Your task to perform on an android device: allow cookies in the chrome app Image 0: 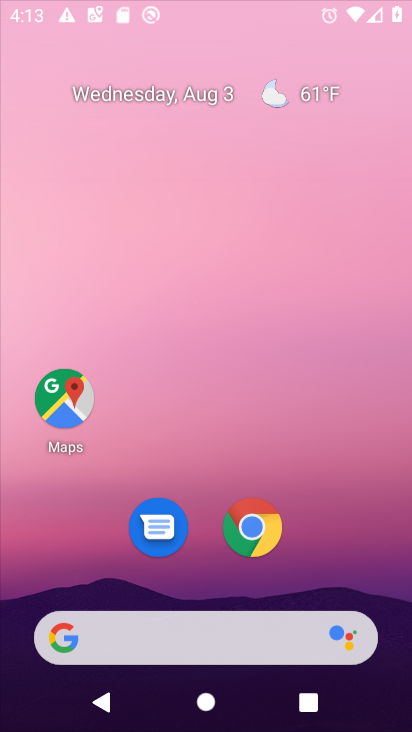
Step 0: drag from (339, 424) to (380, 82)
Your task to perform on an android device: allow cookies in the chrome app Image 1: 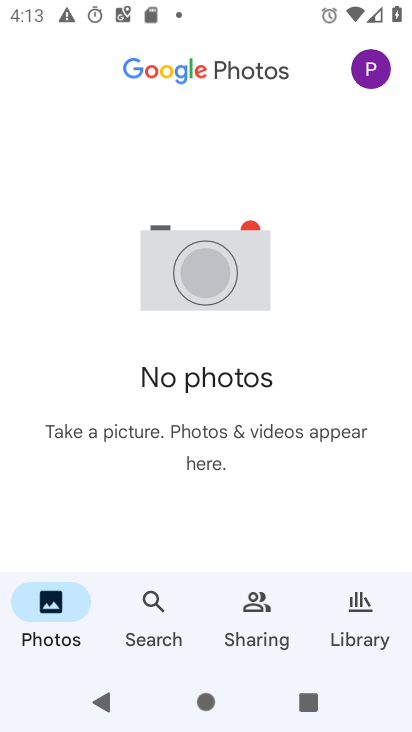
Step 1: press home button
Your task to perform on an android device: allow cookies in the chrome app Image 2: 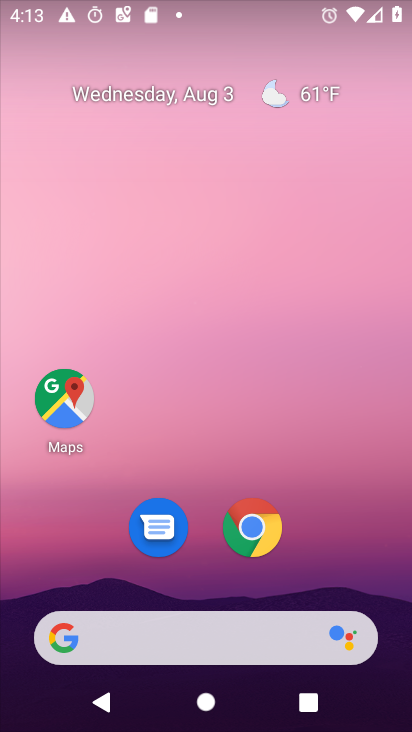
Step 2: drag from (300, 529) to (298, 184)
Your task to perform on an android device: allow cookies in the chrome app Image 3: 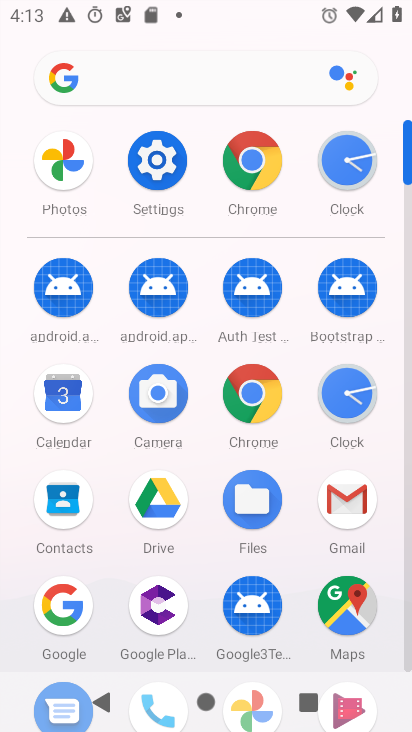
Step 3: click (251, 402)
Your task to perform on an android device: allow cookies in the chrome app Image 4: 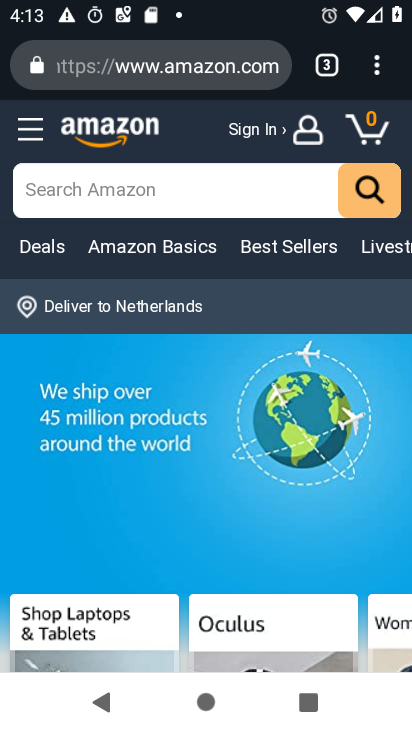
Step 4: drag from (378, 64) to (218, 561)
Your task to perform on an android device: allow cookies in the chrome app Image 5: 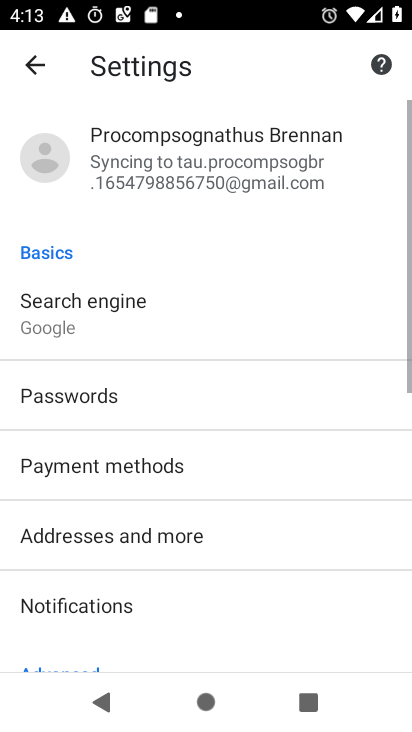
Step 5: drag from (282, 545) to (338, 136)
Your task to perform on an android device: allow cookies in the chrome app Image 6: 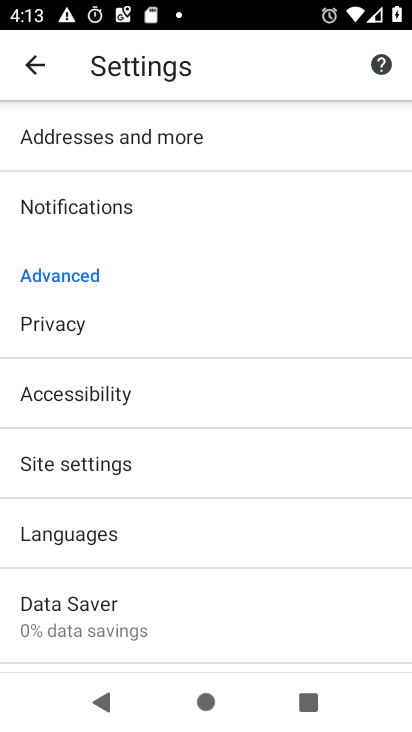
Step 6: click (126, 466)
Your task to perform on an android device: allow cookies in the chrome app Image 7: 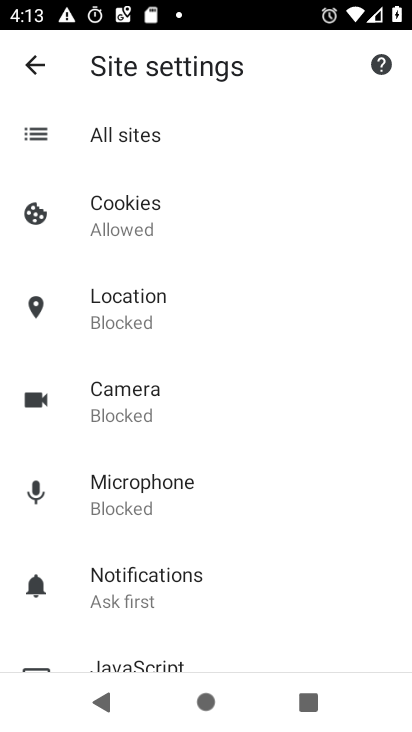
Step 7: click (133, 219)
Your task to perform on an android device: allow cookies in the chrome app Image 8: 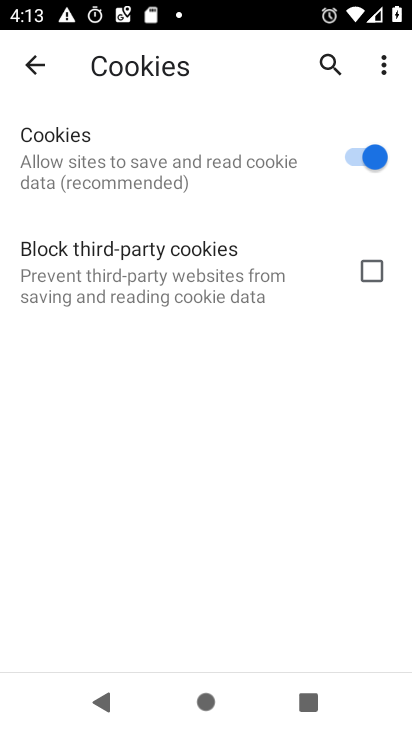
Step 8: task complete